Your task to perform on an android device: make emails show in primary in the gmail app Image 0: 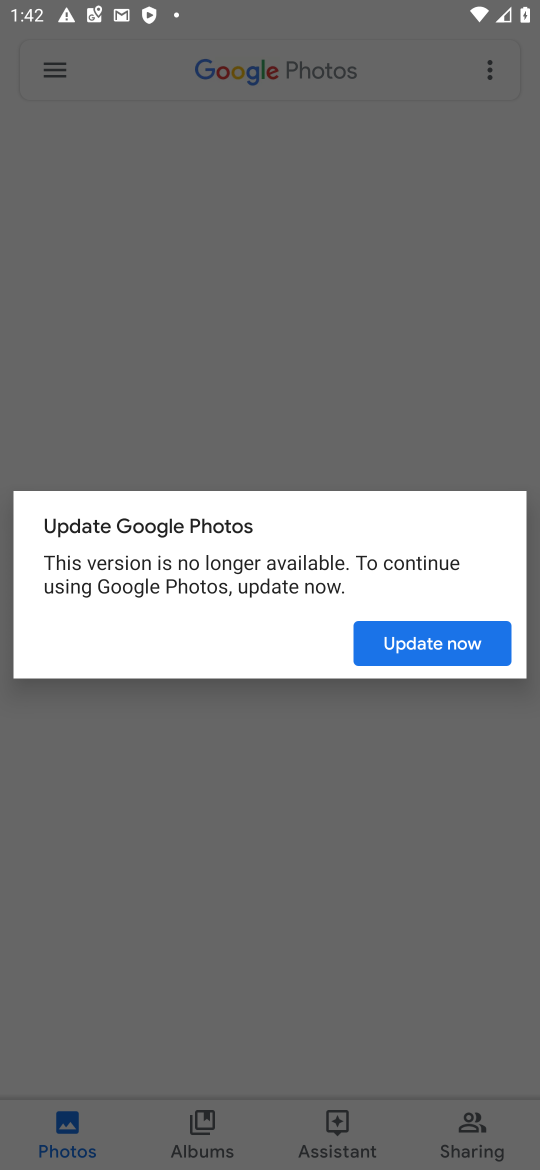
Step 0: press home button
Your task to perform on an android device: make emails show in primary in the gmail app Image 1: 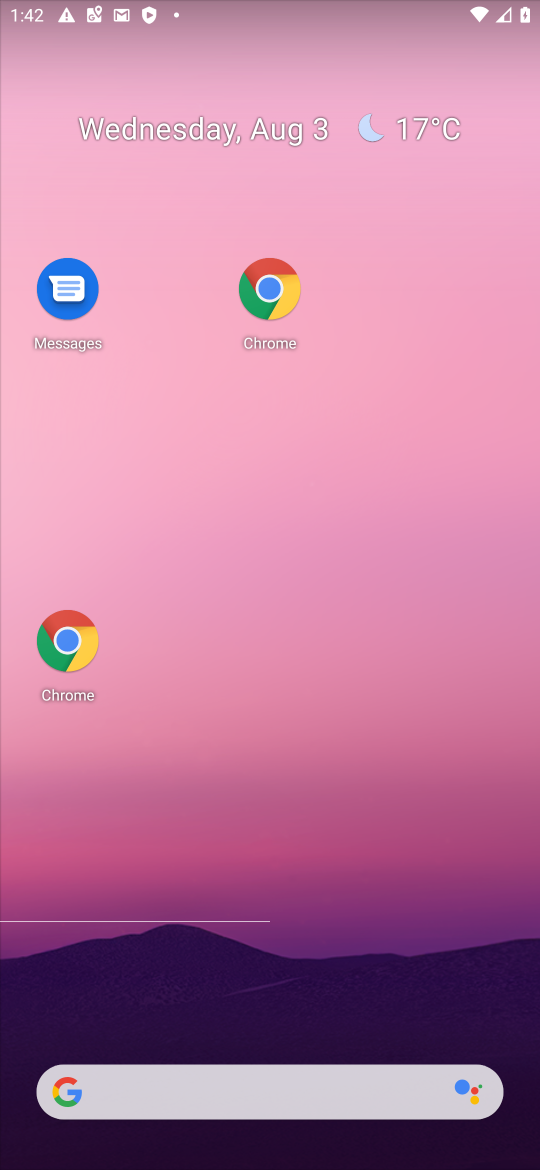
Step 1: drag from (381, 990) to (387, 201)
Your task to perform on an android device: make emails show in primary in the gmail app Image 2: 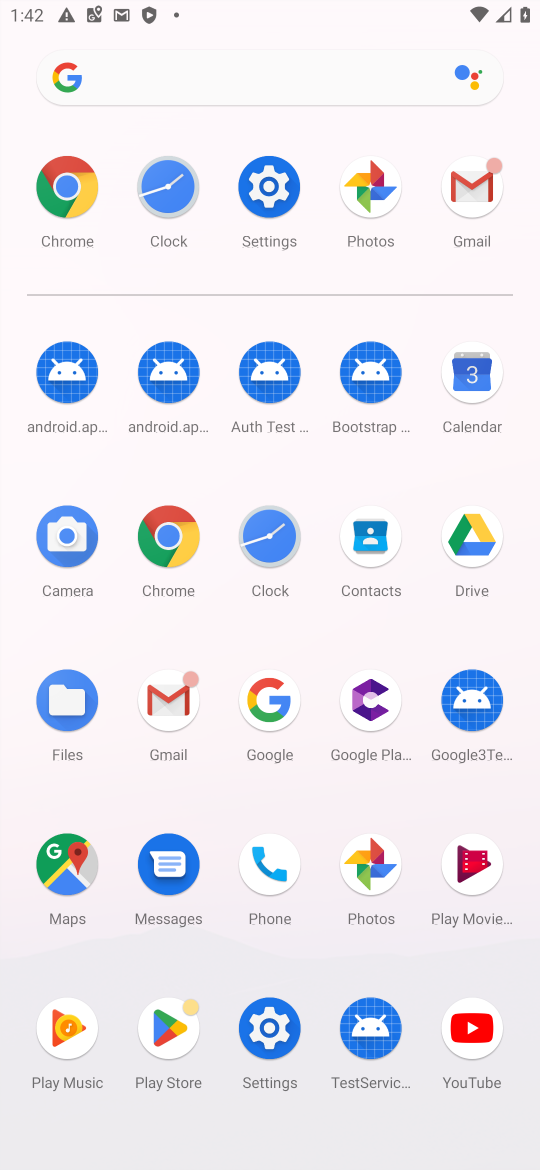
Step 2: click (194, 748)
Your task to perform on an android device: make emails show in primary in the gmail app Image 3: 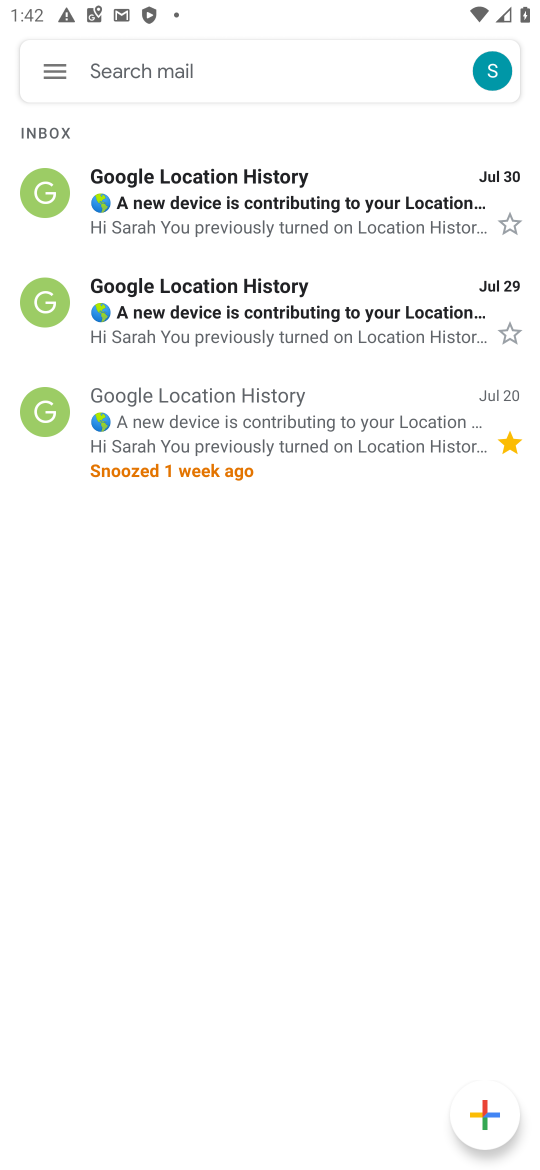
Step 3: click (70, 80)
Your task to perform on an android device: make emails show in primary in the gmail app Image 4: 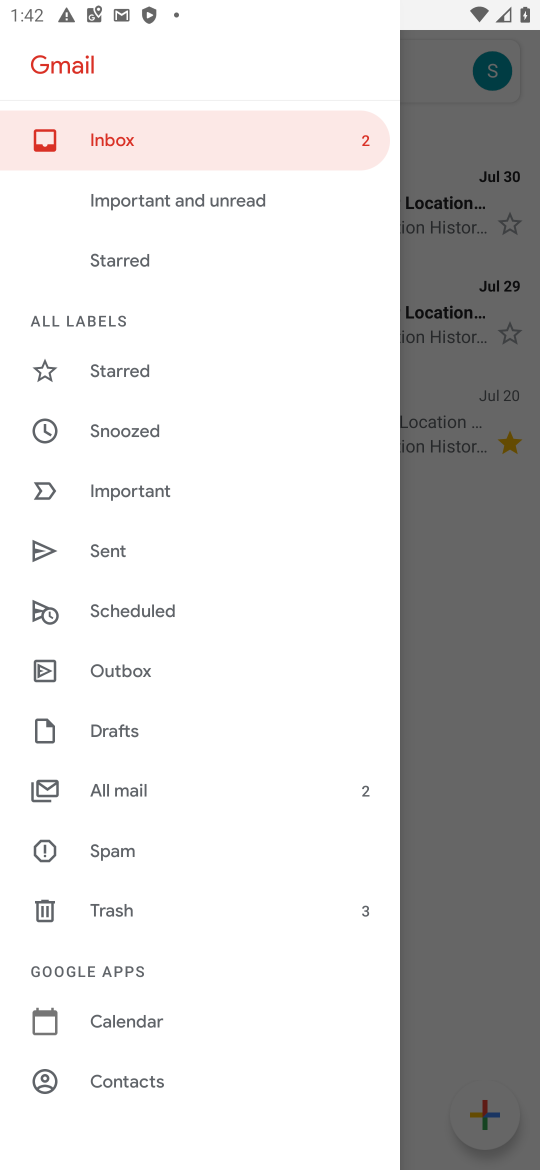
Step 4: drag from (204, 1108) to (177, 728)
Your task to perform on an android device: make emails show in primary in the gmail app Image 5: 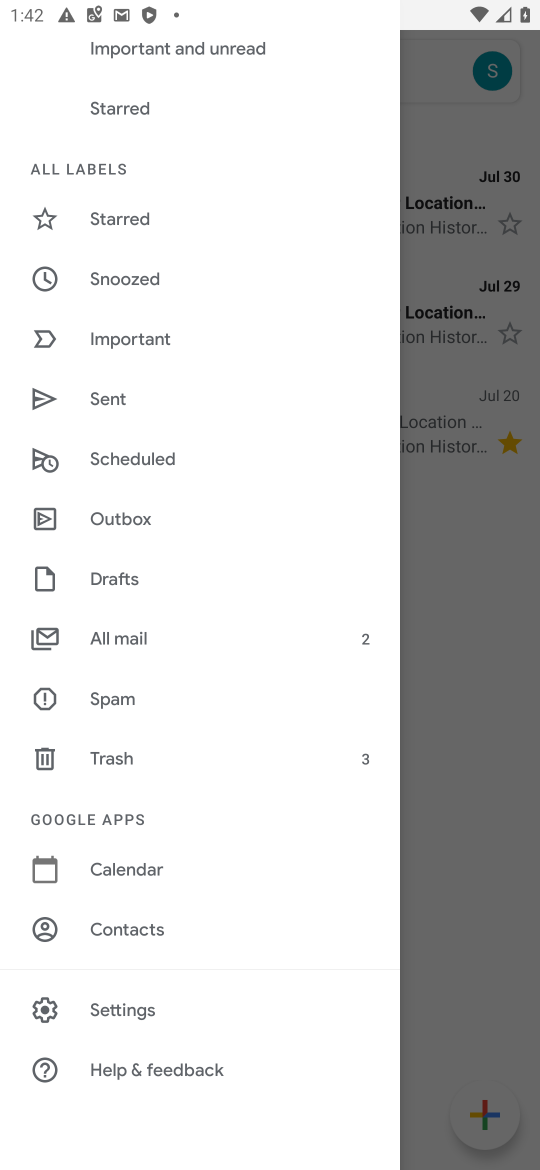
Step 5: click (144, 1013)
Your task to perform on an android device: make emails show in primary in the gmail app Image 6: 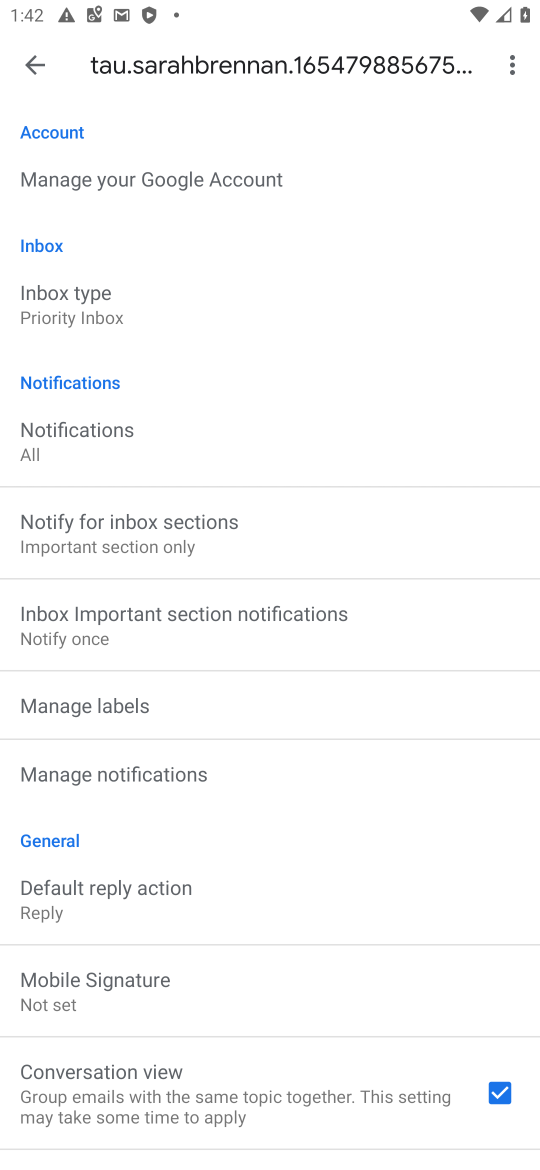
Step 6: click (89, 282)
Your task to perform on an android device: make emails show in primary in the gmail app Image 7: 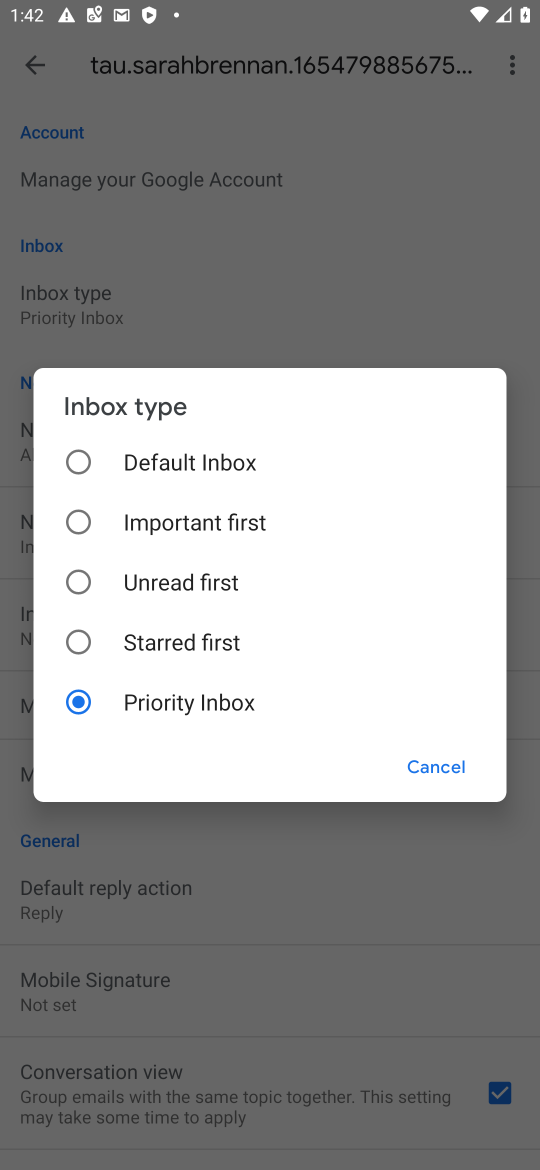
Step 7: click (134, 233)
Your task to perform on an android device: make emails show in primary in the gmail app Image 8: 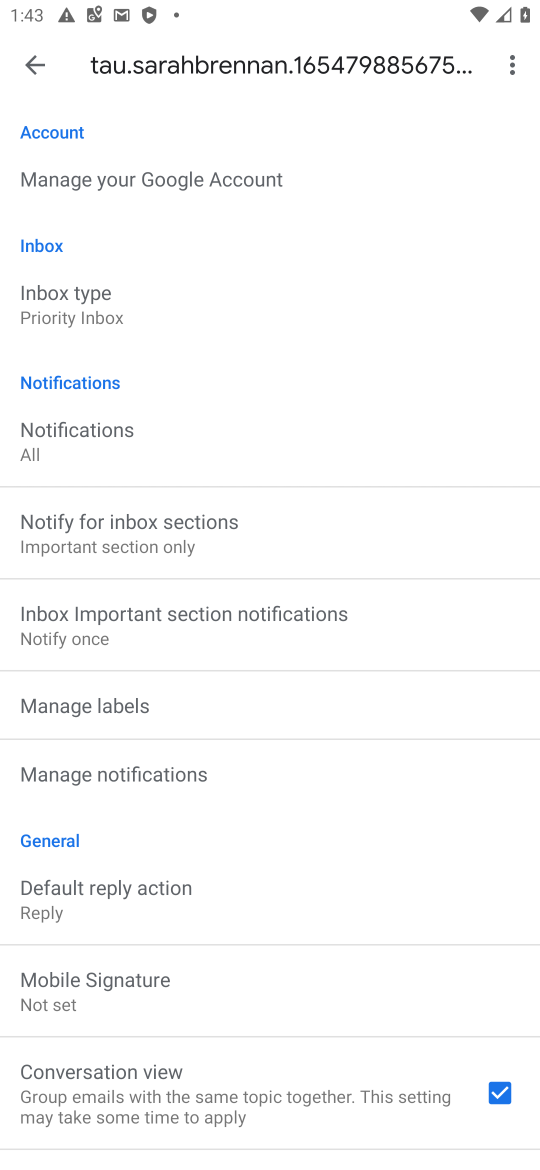
Step 8: click (75, 443)
Your task to perform on an android device: make emails show in primary in the gmail app Image 9: 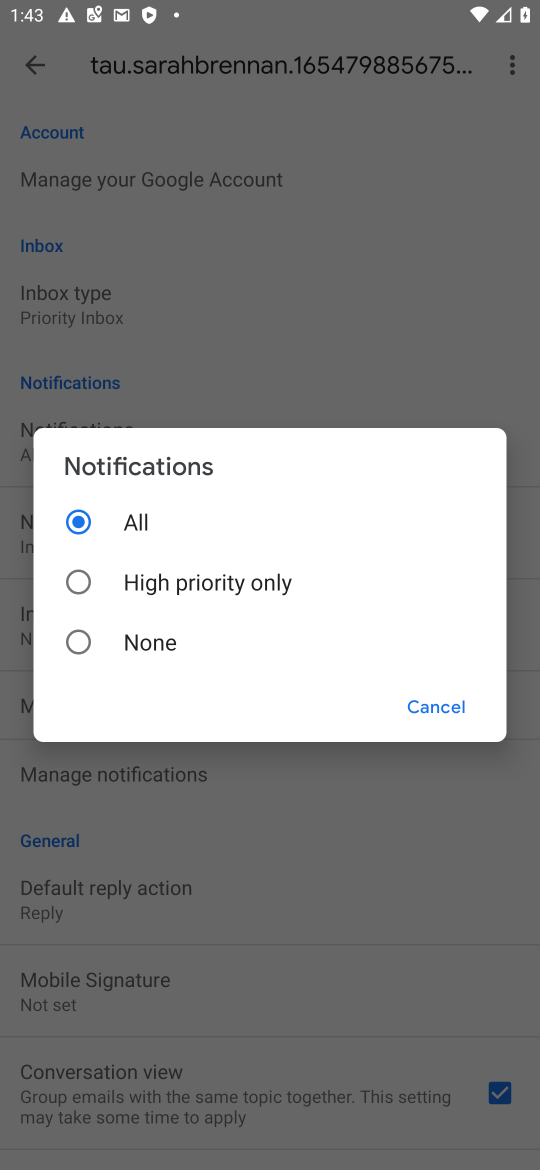
Step 9: click (140, 591)
Your task to perform on an android device: make emails show in primary in the gmail app Image 10: 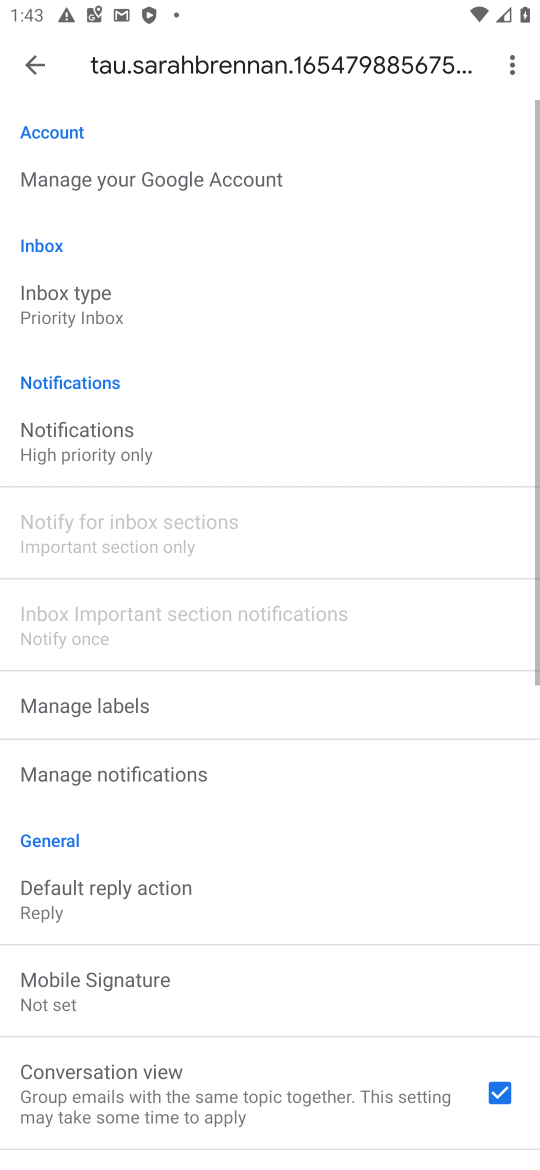
Step 10: task complete